Your task to perform on an android device: open app "Cash App" Image 0: 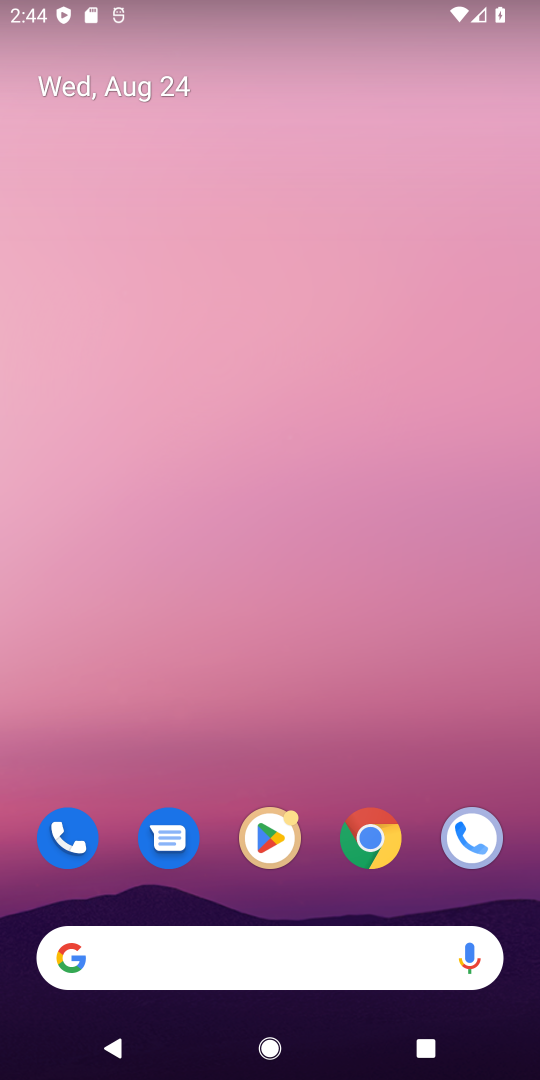
Step 0: press home button
Your task to perform on an android device: open app "Cash App" Image 1: 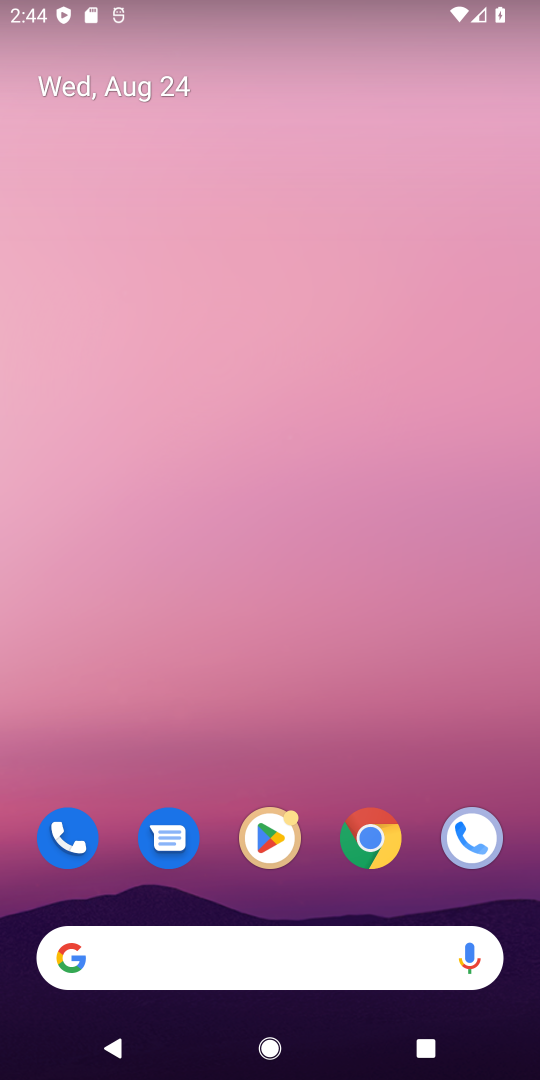
Step 1: drag from (408, 755) to (394, 98)
Your task to perform on an android device: open app "Cash App" Image 2: 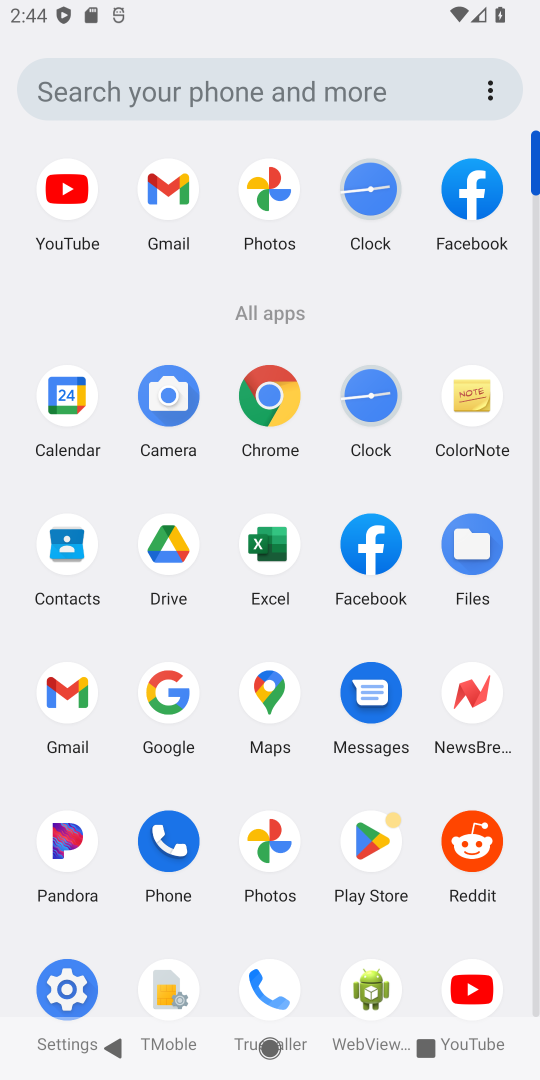
Step 2: click (377, 850)
Your task to perform on an android device: open app "Cash App" Image 3: 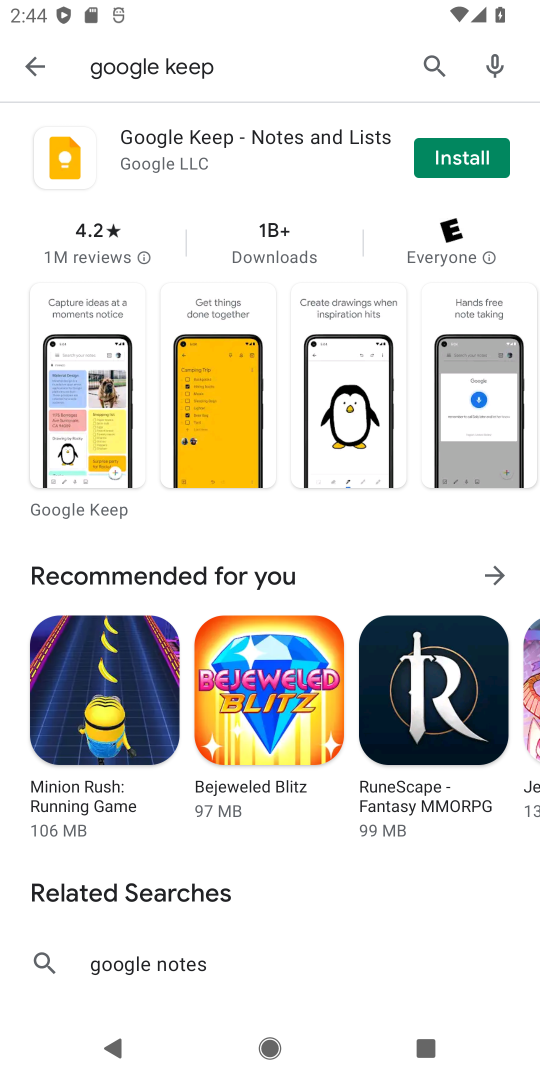
Step 3: press back button
Your task to perform on an android device: open app "Cash App" Image 4: 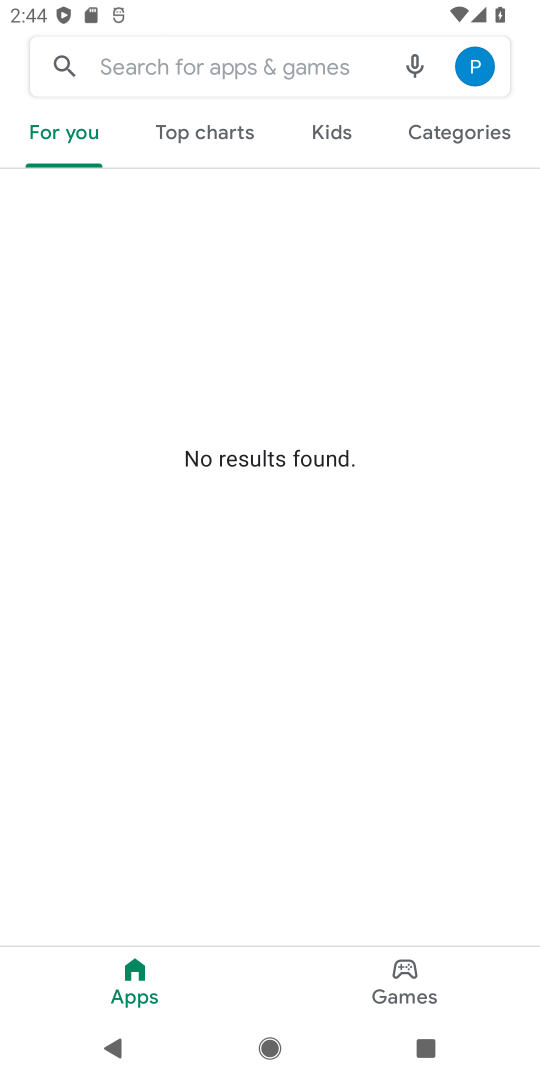
Step 4: click (243, 66)
Your task to perform on an android device: open app "Cash App" Image 5: 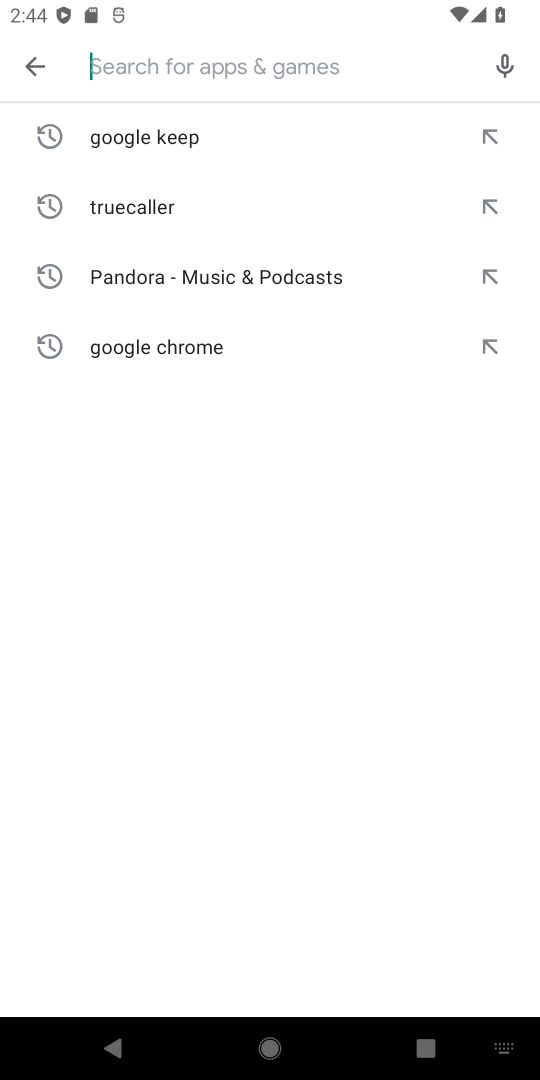
Step 5: press enter
Your task to perform on an android device: open app "Cash App" Image 6: 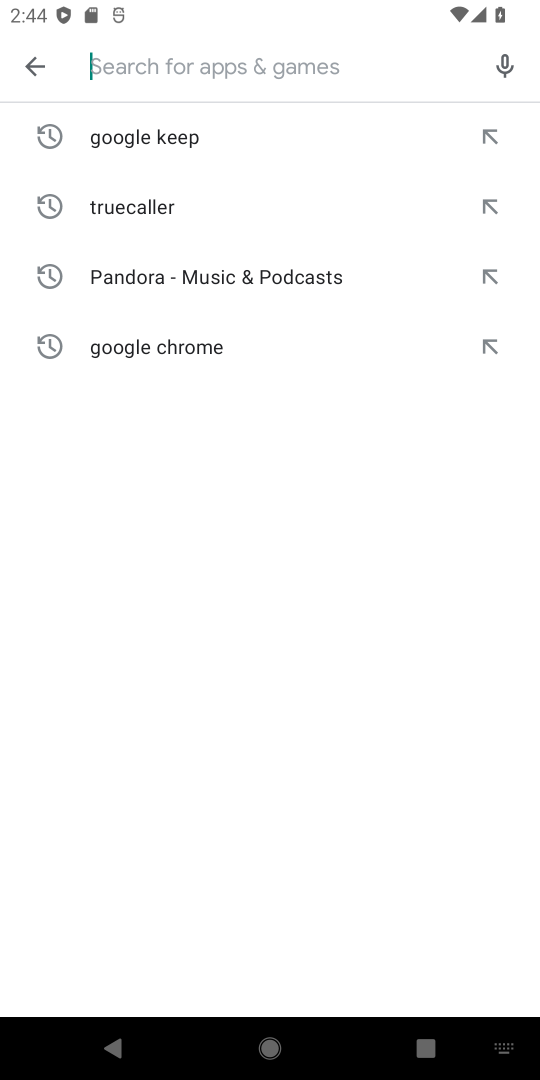
Step 6: type "cash app"
Your task to perform on an android device: open app "Cash App" Image 7: 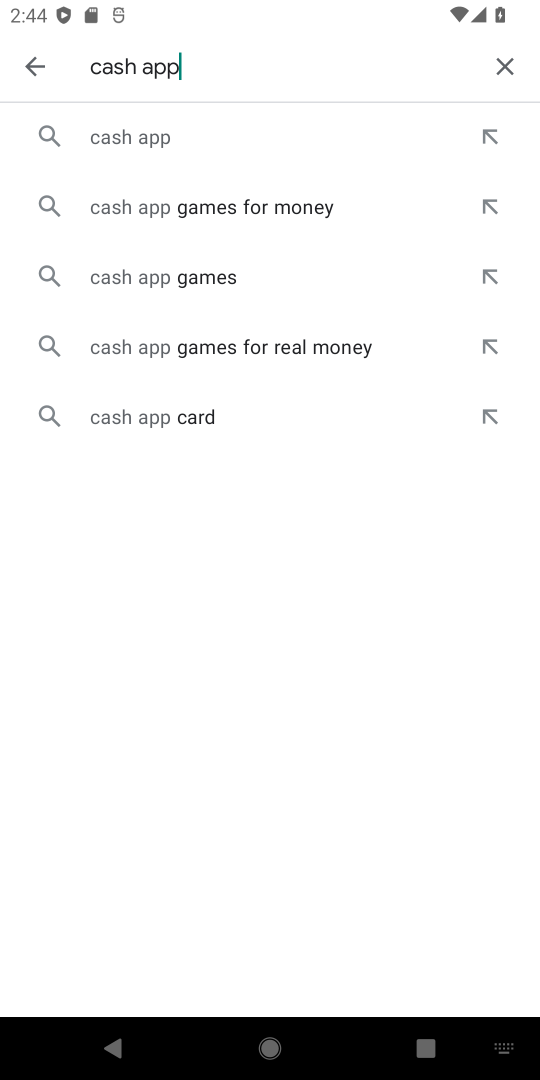
Step 7: click (268, 143)
Your task to perform on an android device: open app "Cash App" Image 8: 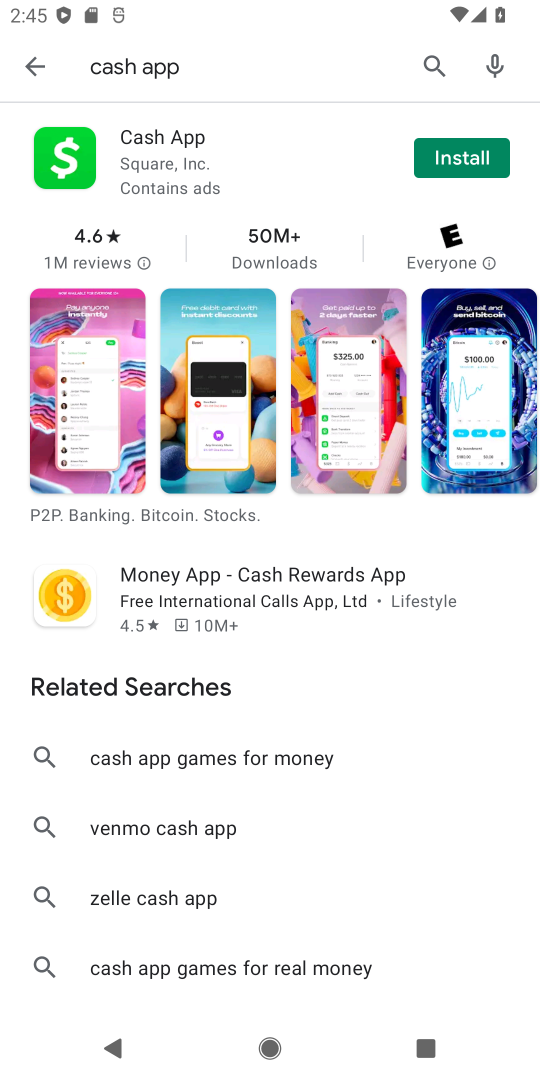
Step 8: task complete